Your task to perform on an android device: Open the calendar app, open the side menu, and click the "Day" option Image 0: 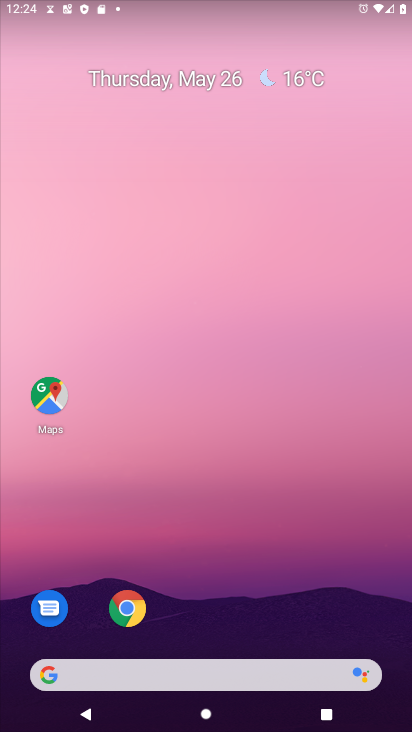
Step 0: drag from (237, 730) to (237, 47)
Your task to perform on an android device: Open the calendar app, open the side menu, and click the "Day" option Image 1: 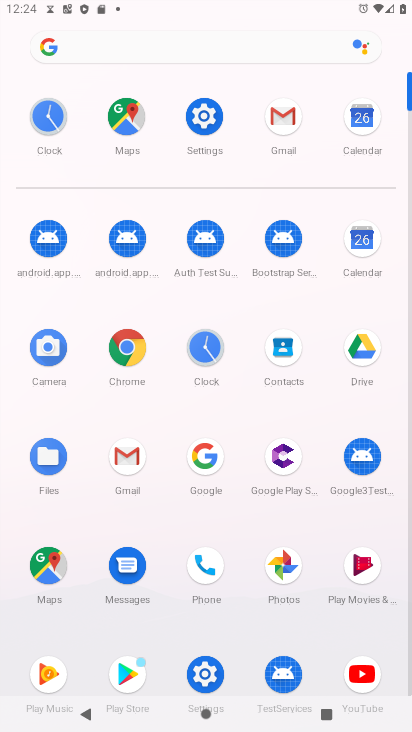
Step 1: click (357, 246)
Your task to perform on an android device: Open the calendar app, open the side menu, and click the "Day" option Image 2: 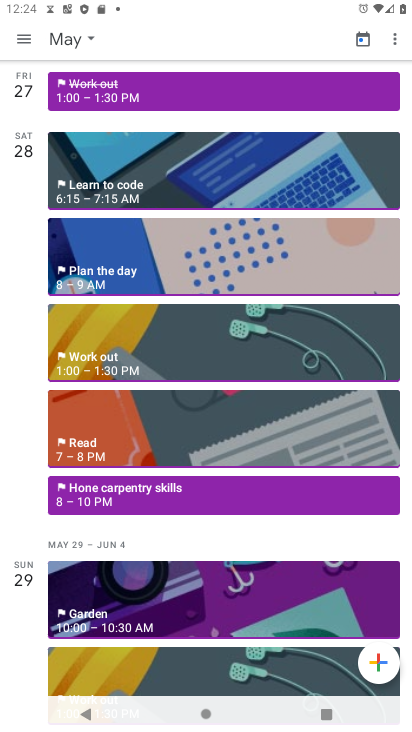
Step 2: click (28, 35)
Your task to perform on an android device: Open the calendar app, open the side menu, and click the "Day" option Image 3: 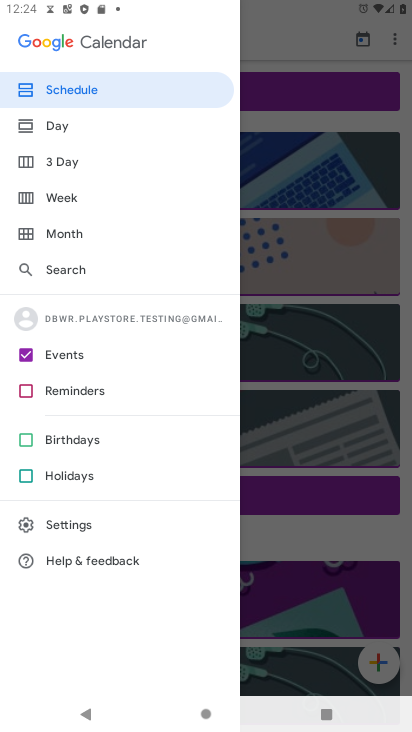
Step 3: click (56, 127)
Your task to perform on an android device: Open the calendar app, open the side menu, and click the "Day" option Image 4: 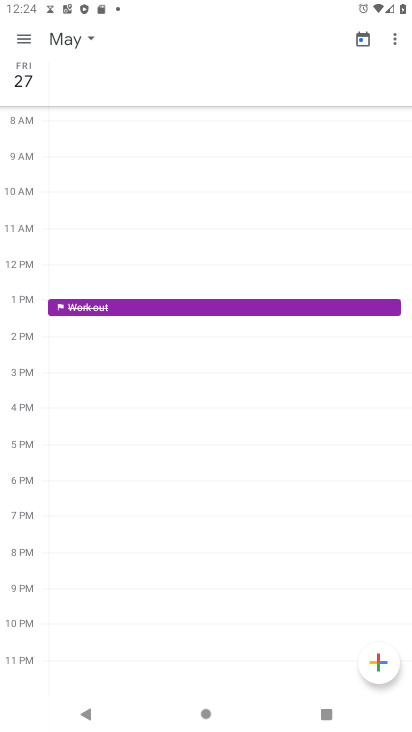
Step 4: task complete